Your task to perform on an android device: Open accessibility settings Image 0: 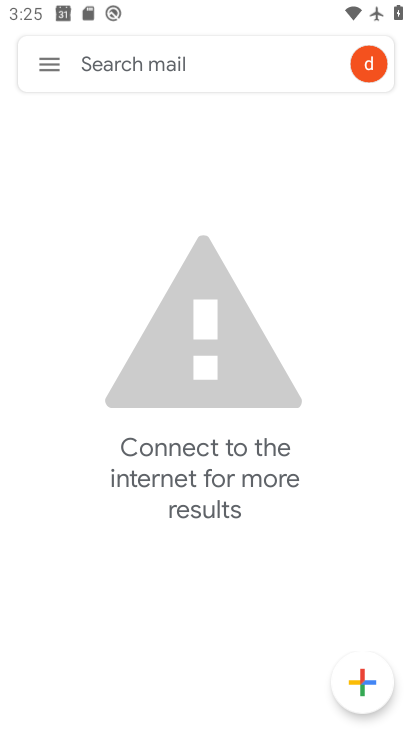
Step 0: press home button
Your task to perform on an android device: Open accessibility settings Image 1: 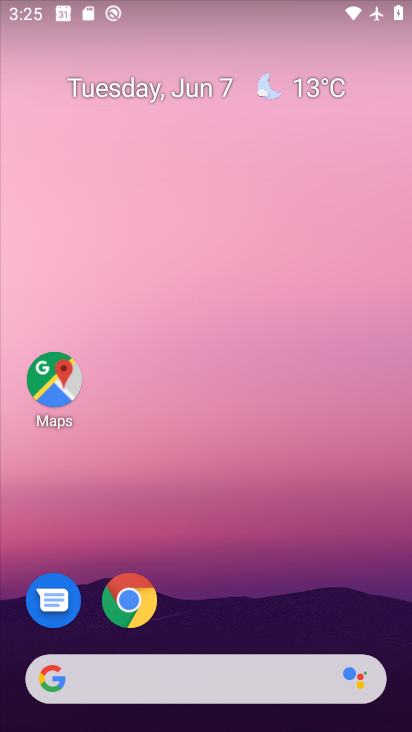
Step 1: drag from (248, 550) to (237, 189)
Your task to perform on an android device: Open accessibility settings Image 2: 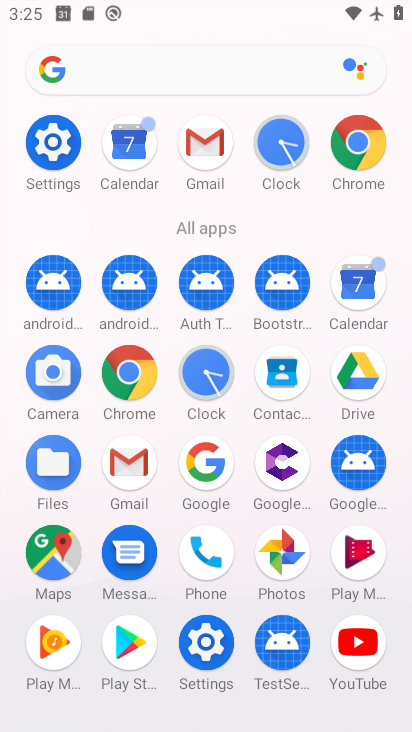
Step 2: click (72, 154)
Your task to perform on an android device: Open accessibility settings Image 3: 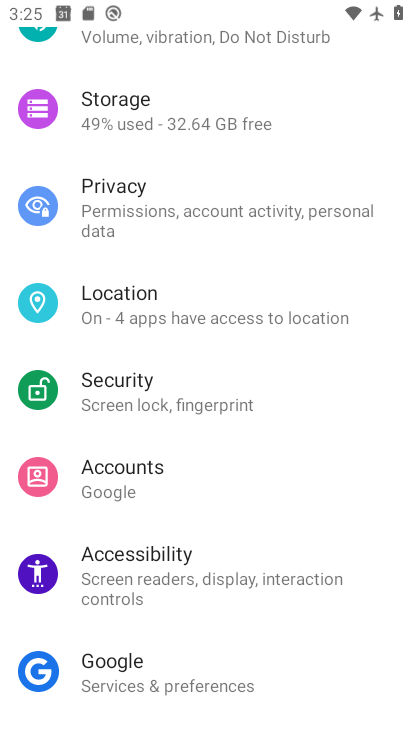
Step 3: drag from (337, 529) to (387, 181)
Your task to perform on an android device: Open accessibility settings Image 4: 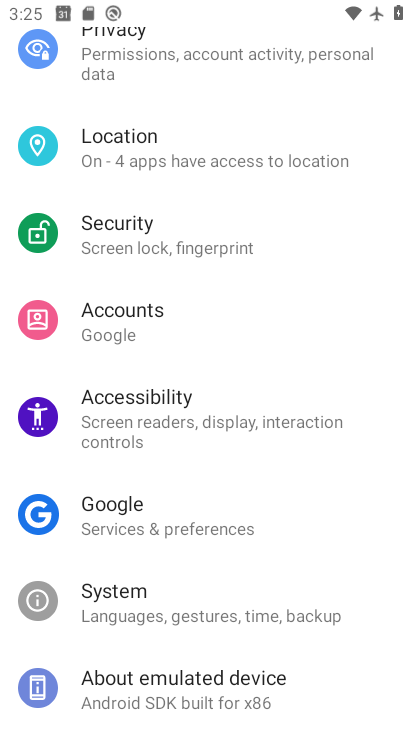
Step 4: click (221, 433)
Your task to perform on an android device: Open accessibility settings Image 5: 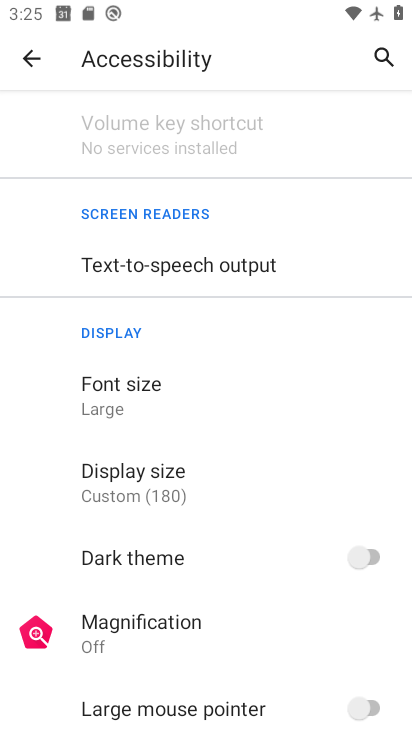
Step 5: task complete